Your task to perform on an android device: Open sound settings Image 0: 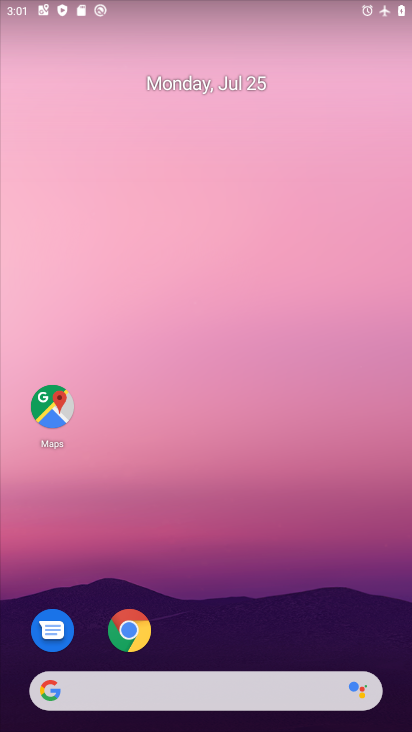
Step 0: task complete